Your task to perform on an android device: Open Youtube and go to the subscriptions tab Image 0: 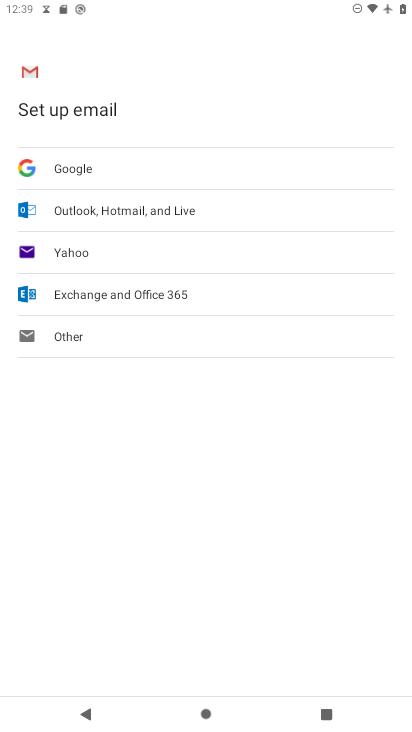
Step 0: press home button
Your task to perform on an android device: Open Youtube and go to the subscriptions tab Image 1: 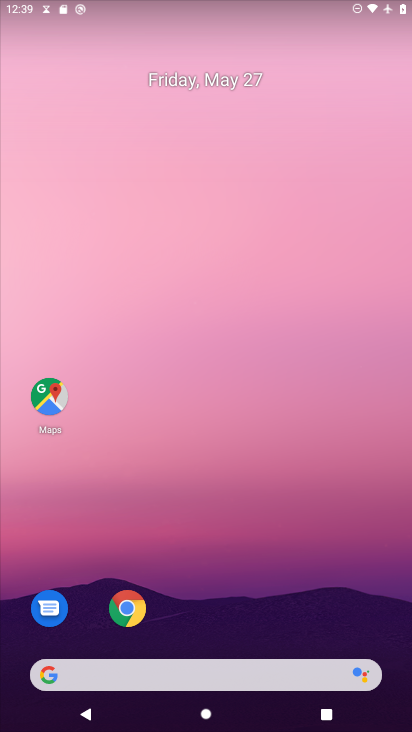
Step 1: drag from (125, 674) to (316, 131)
Your task to perform on an android device: Open Youtube and go to the subscriptions tab Image 2: 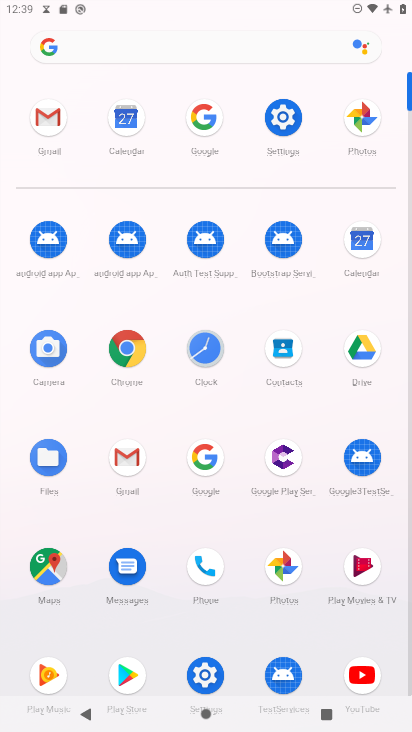
Step 2: click (361, 677)
Your task to perform on an android device: Open Youtube and go to the subscriptions tab Image 3: 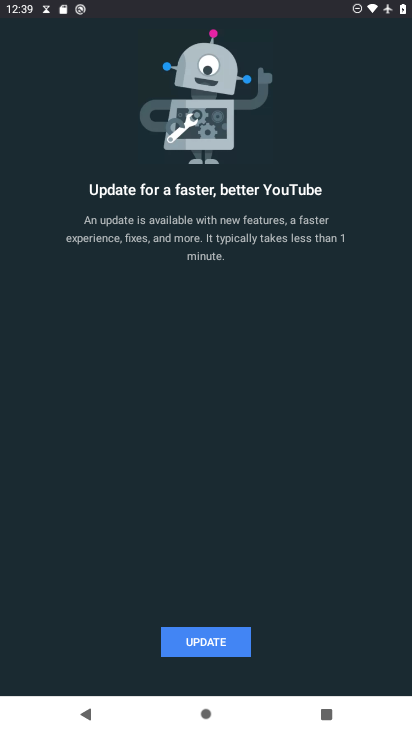
Step 3: click (213, 644)
Your task to perform on an android device: Open Youtube and go to the subscriptions tab Image 4: 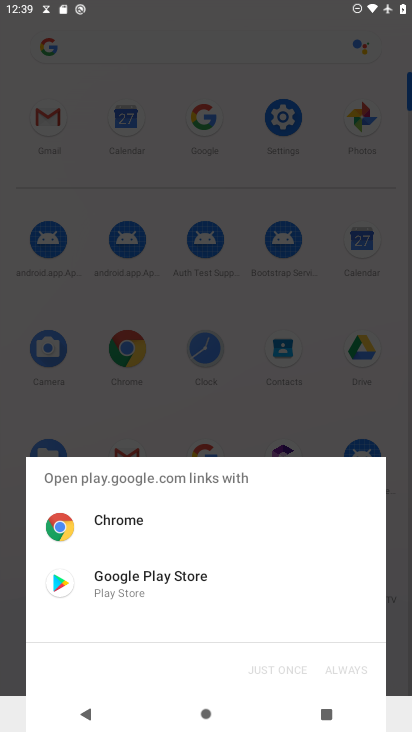
Step 4: click (165, 581)
Your task to perform on an android device: Open Youtube and go to the subscriptions tab Image 5: 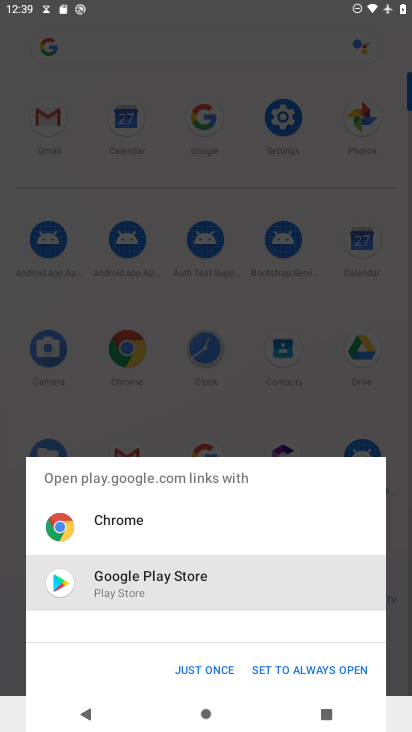
Step 5: click (217, 671)
Your task to perform on an android device: Open Youtube and go to the subscriptions tab Image 6: 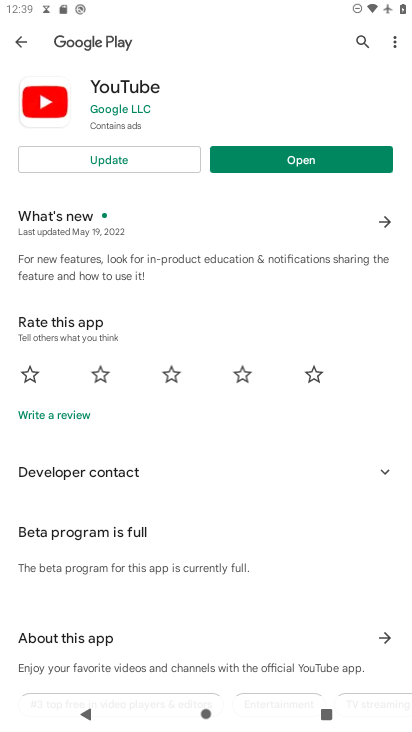
Step 6: click (114, 152)
Your task to perform on an android device: Open Youtube and go to the subscriptions tab Image 7: 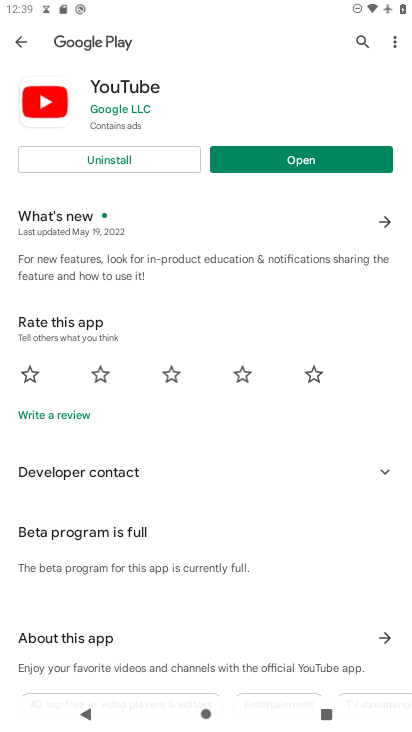
Step 7: click (302, 155)
Your task to perform on an android device: Open Youtube and go to the subscriptions tab Image 8: 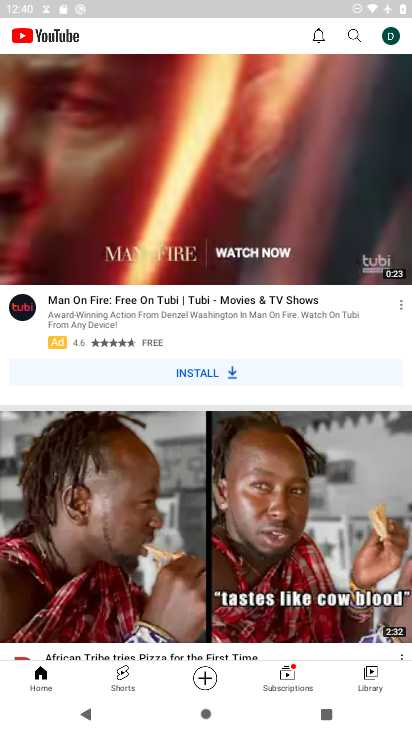
Step 8: click (290, 682)
Your task to perform on an android device: Open Youtube and go to the subscriptions tab Image 9: 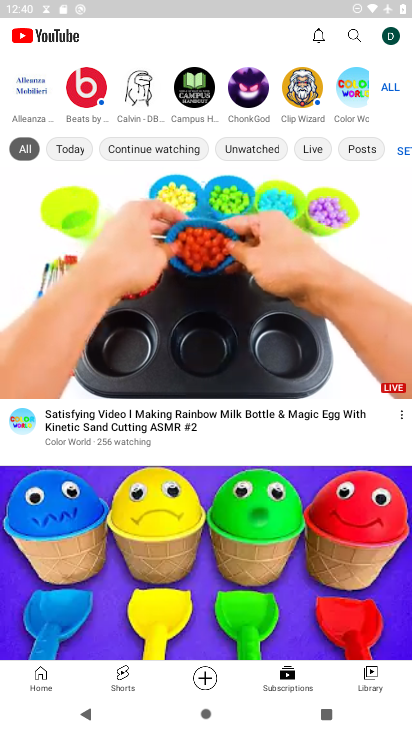
Step 9: task complete